Your task to perform on an android device: toggle improve location accuracy Image 0: 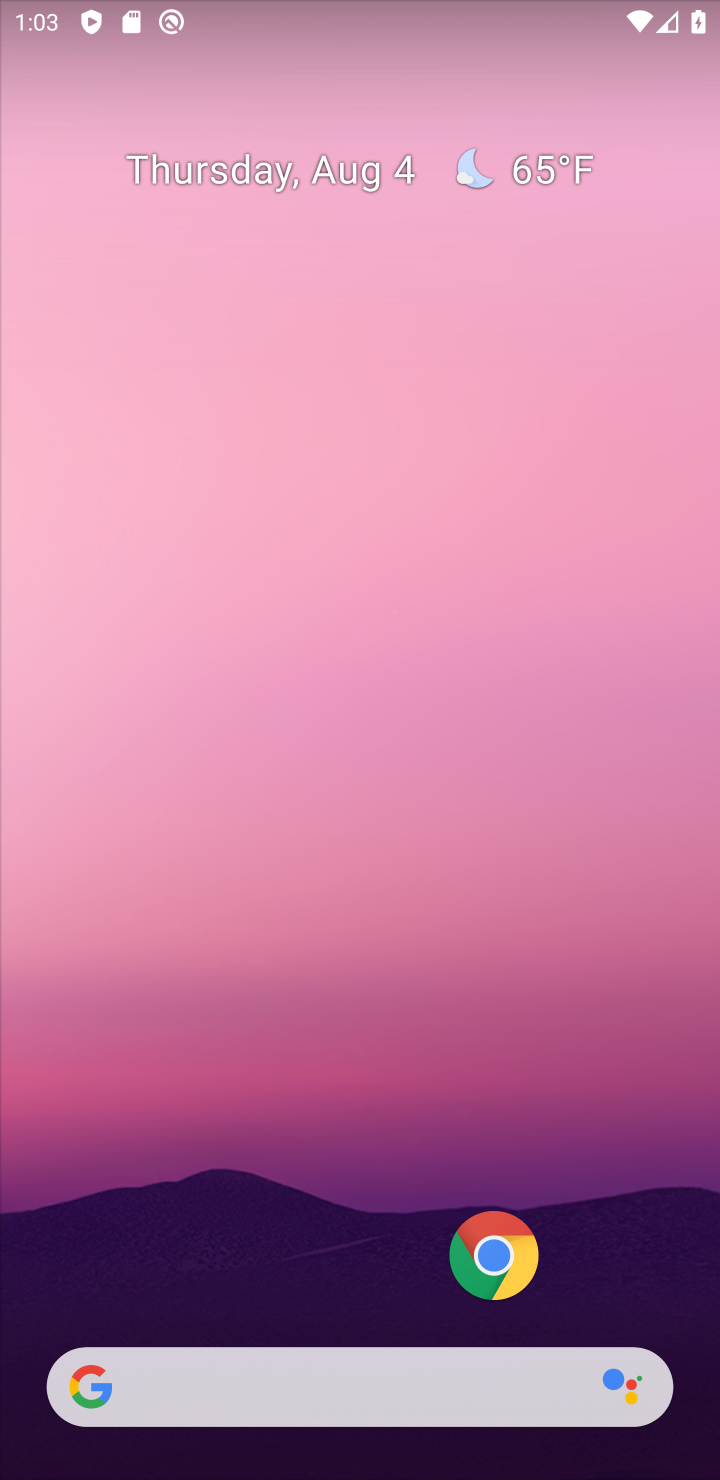
Step 0: drag from (175, 891) to (231, 149)
Your task to perform on an android device: toggle improve location accuracy Image 1: 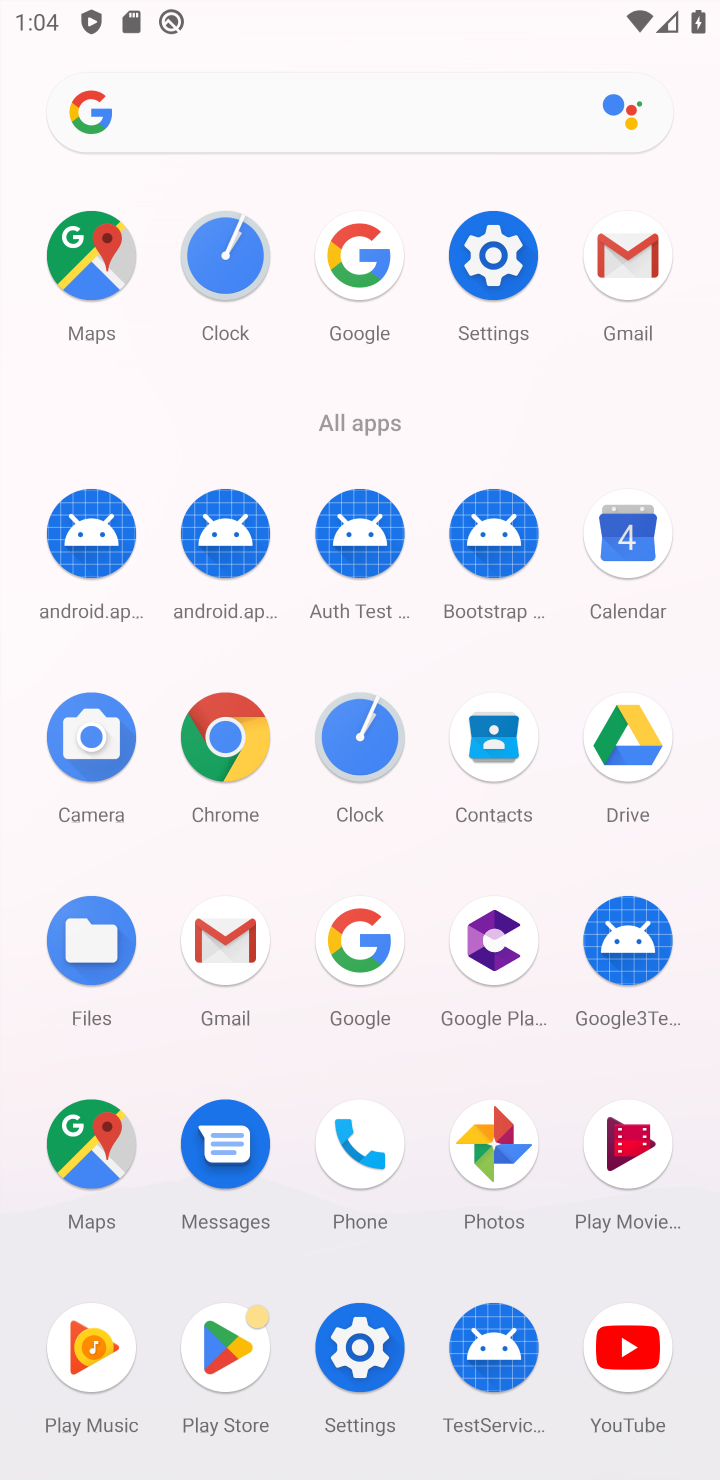
Step 1: click (480, 293)
Your task to perform on an android device: toggle improve location accuracy Image 2: 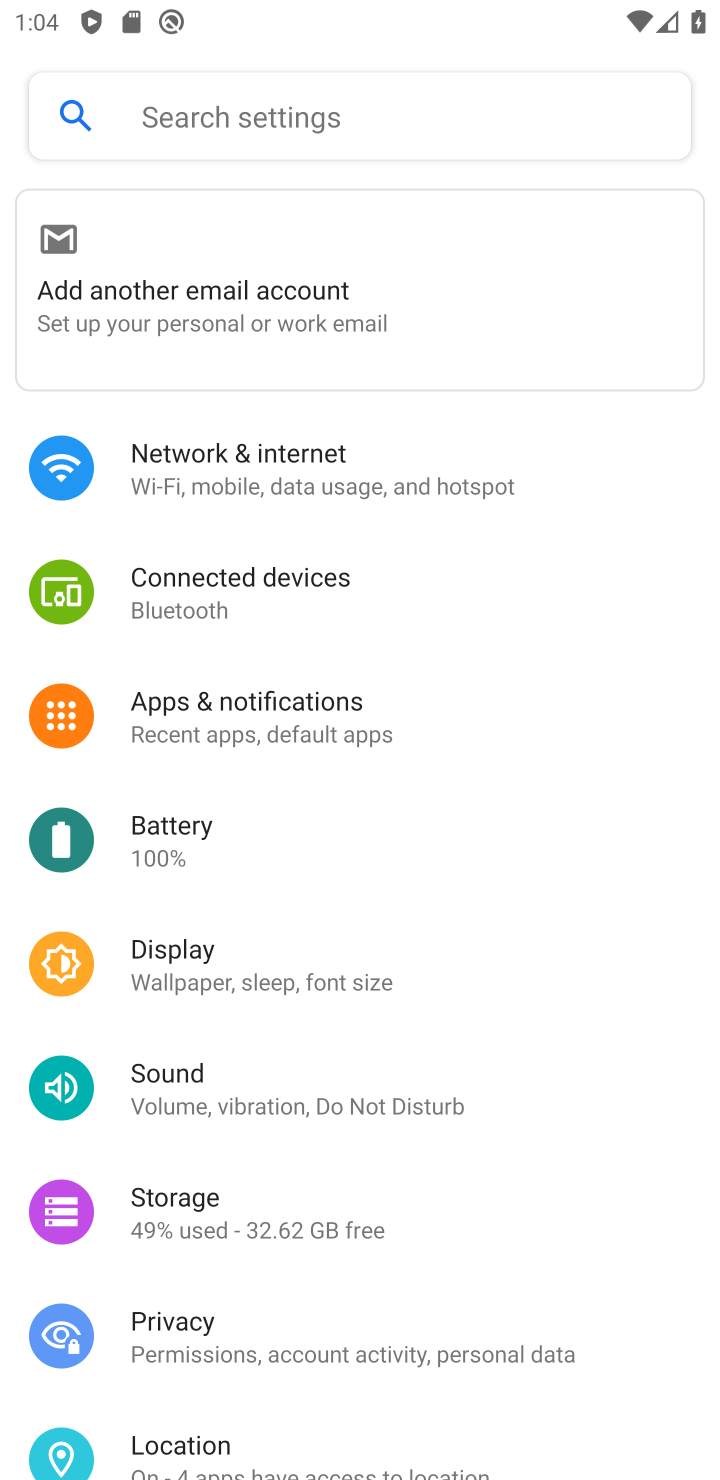
Step 2: drag from (279, 1073) to (327, 458)
Your task to perform on an android device: toggle improve location accuracy Image 3: 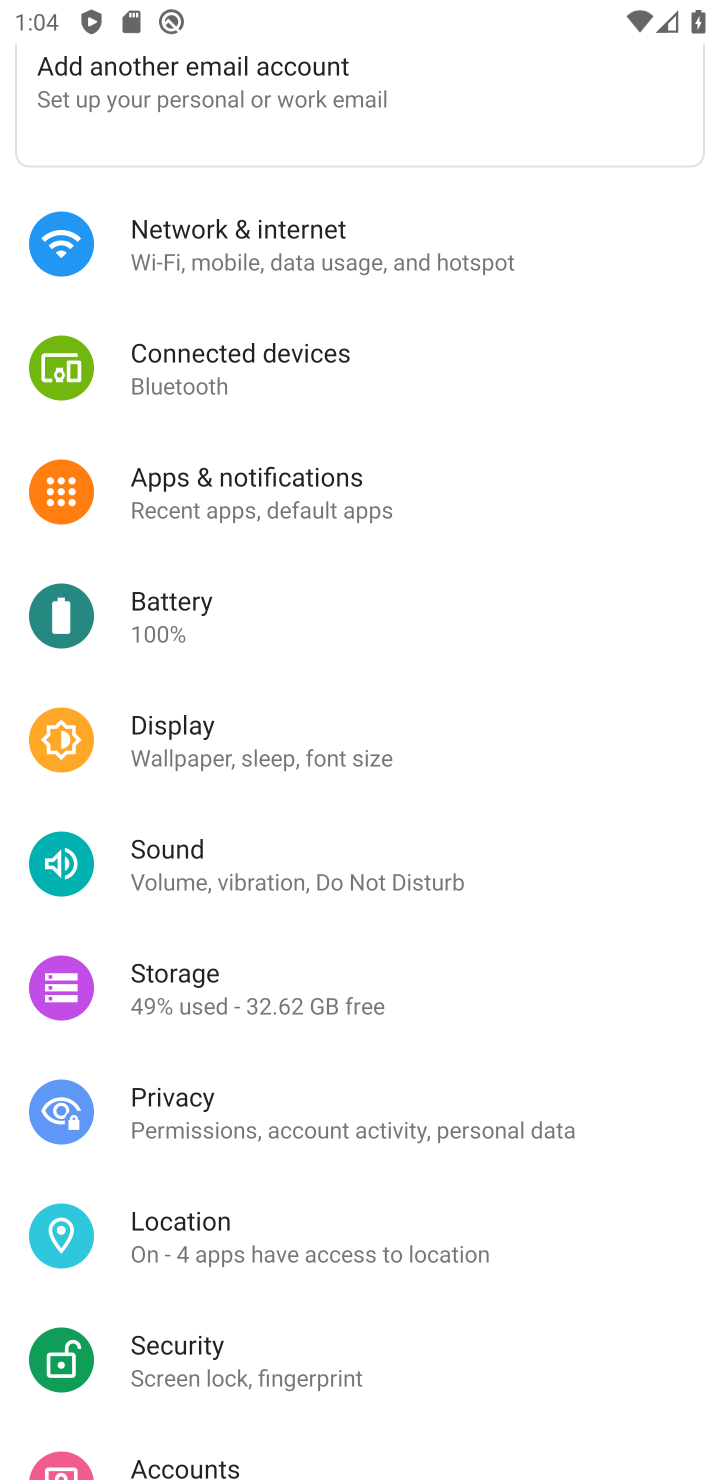
Step 3: click (239, 1238)
Your task to perform on an android device: toggle improve location accuracy Image 4: 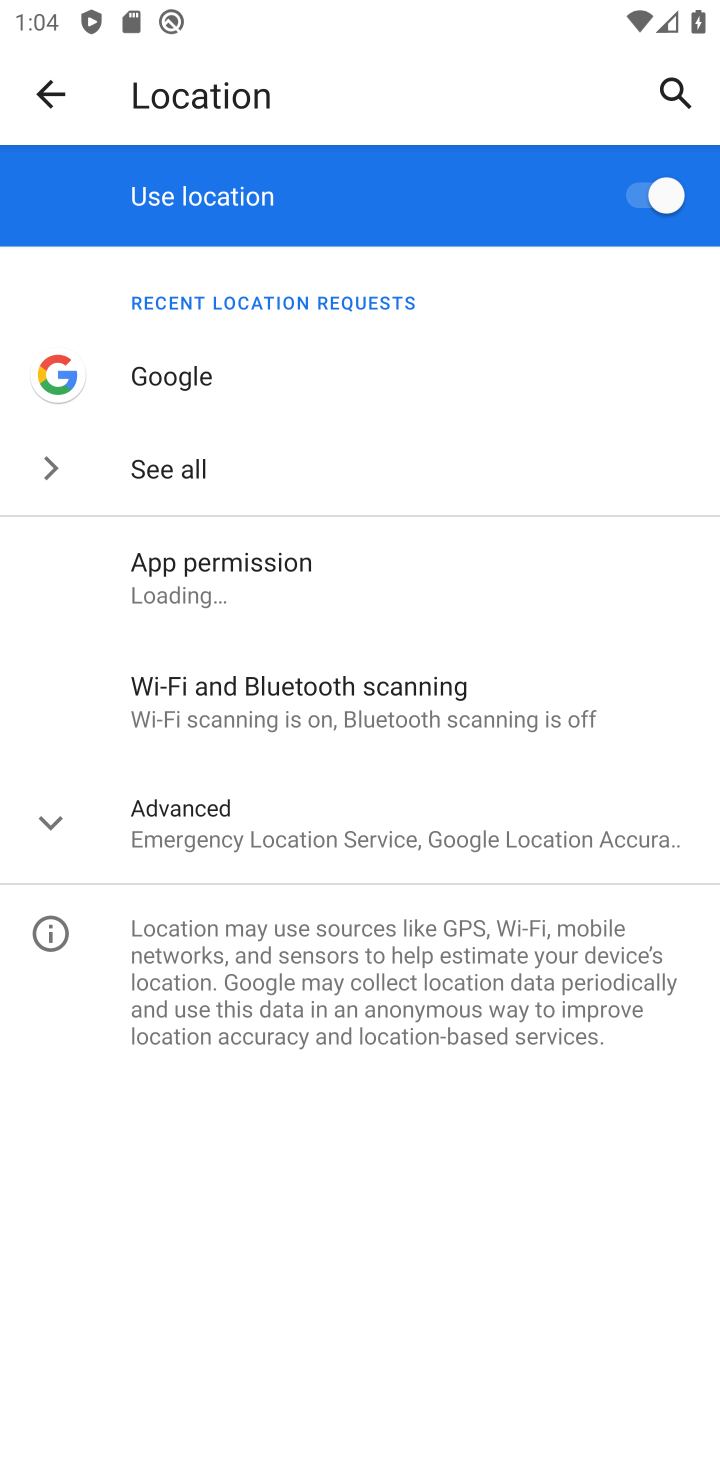
Step 4: click (265, 832)
Your task to perform on an android device: toggle improve location accuracy Image 5: 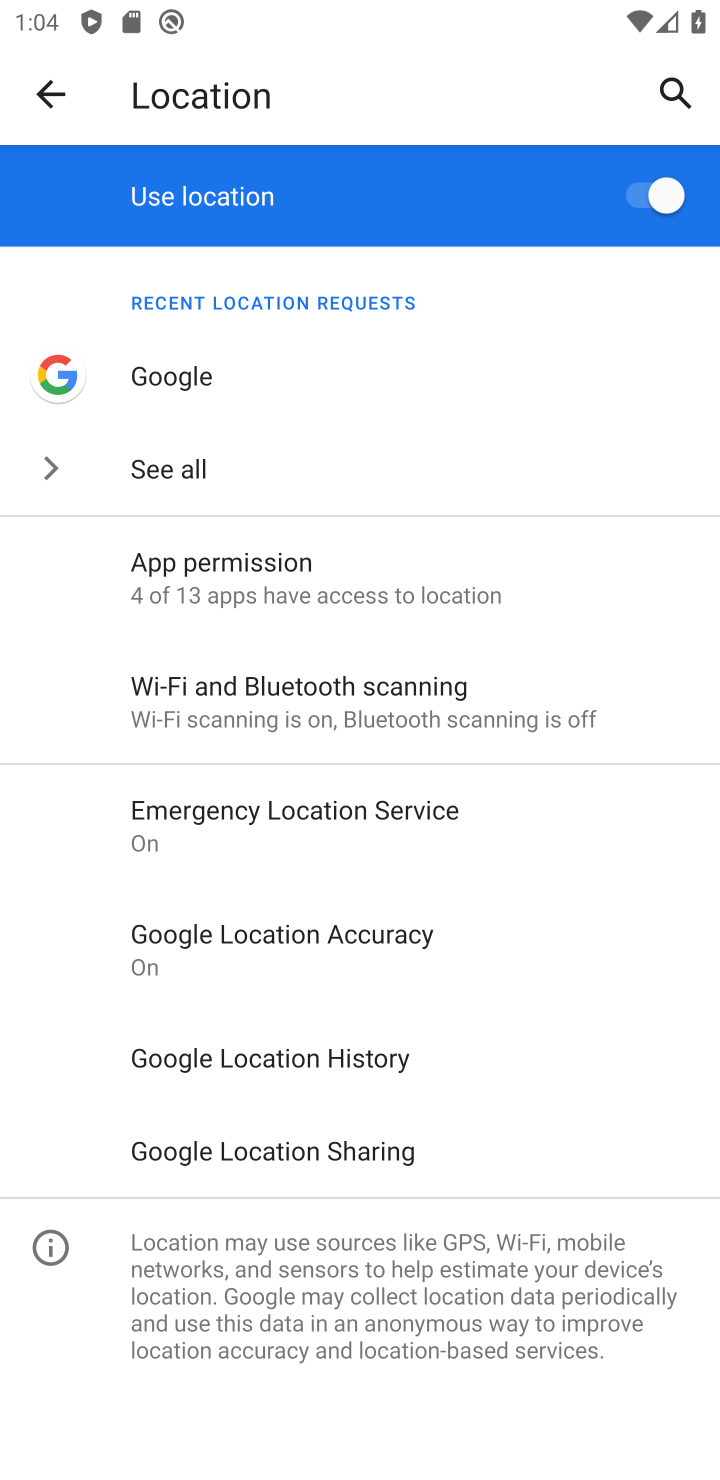
Step 5: click (301, 949)
Your task to perform on an android device: toggle improve location accuracy Image 6: 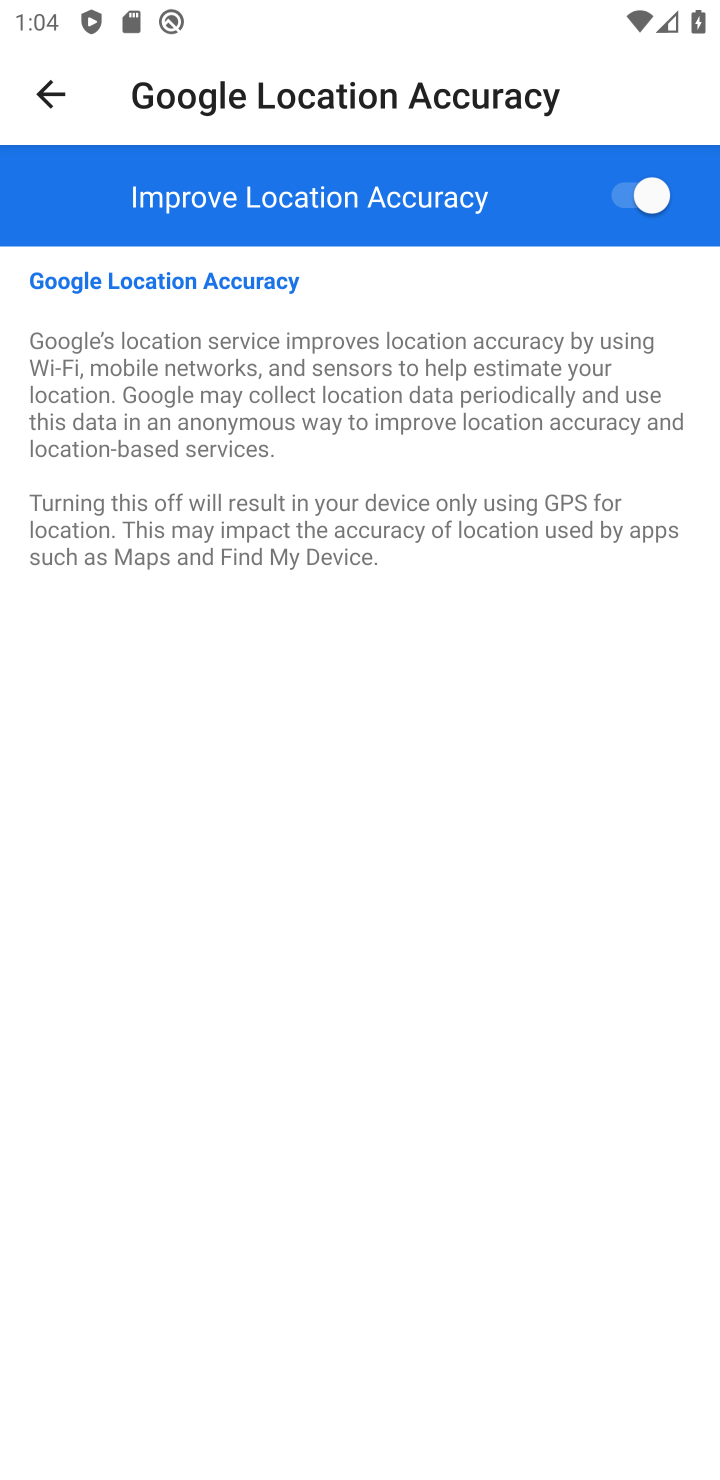
Step 6: click (652, 191)
Your task to perform on an android device: toggle improve location accuracy Image 7: 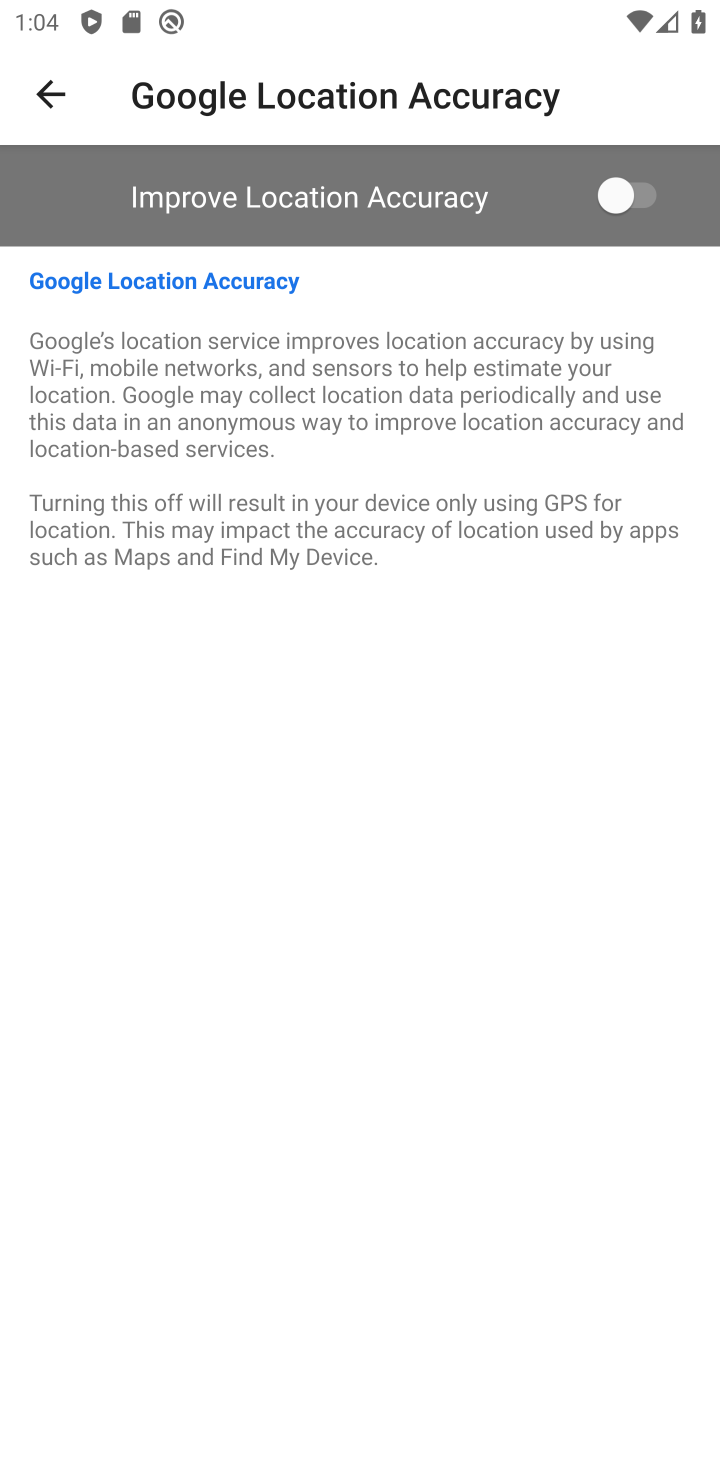
Step 7: task complete